Your task to perform on an android device: find which apps use the phone's location Image 0: 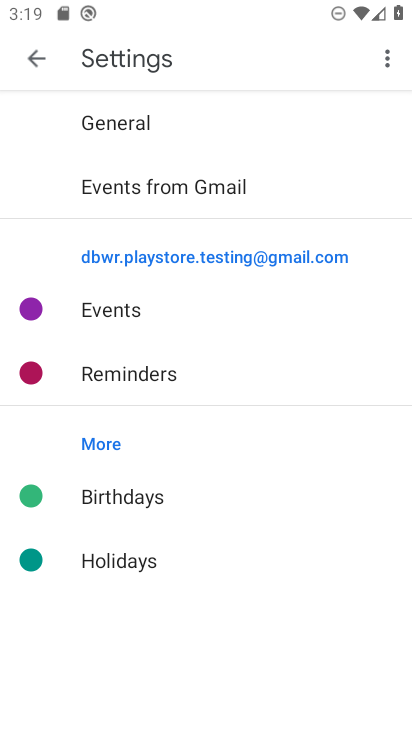
Step 0: drag from (245, 601) to (264, 6)
Your task to perform on an android device: find which apps use the phone's location Image 1: 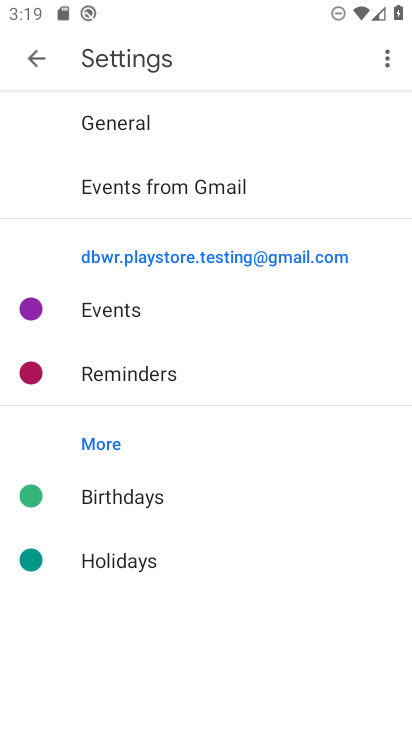
Step 1: press home button
Your task to perform on an android device: find which apps use the phone's location Image 2: 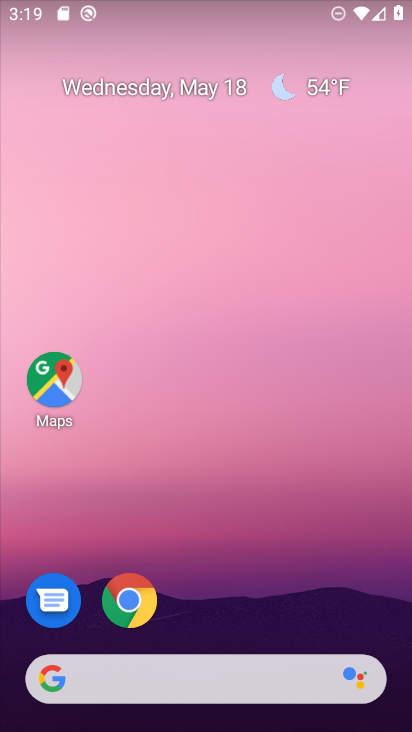
Step 2: drag from (202, 610) to (314, 0)
Your task to perform on an android device: find which apps use the phone's location Image 3: 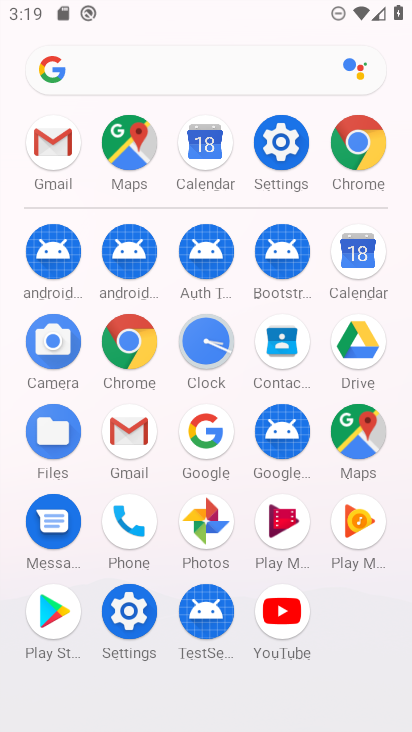
Step 3: click (292, 153)
Your task to perform on an android device: find which apps use the phone's location Image 4: 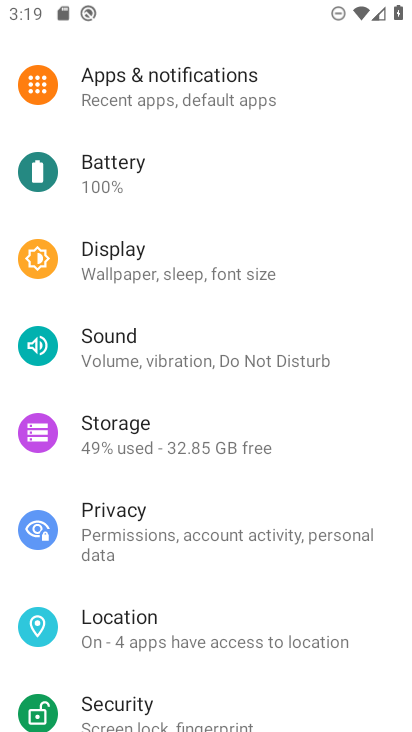
Step 4: drag from (229, 181) to (259, 135)
Your task to perform on an android device: find which apps use the phone's location Image 5: 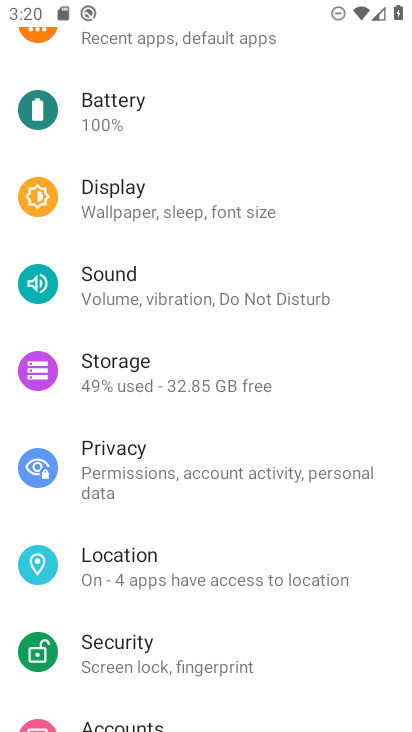
Step 5: click (164, 570)
Your task to perform on an android device: find which apps use the phone's location Image 6: 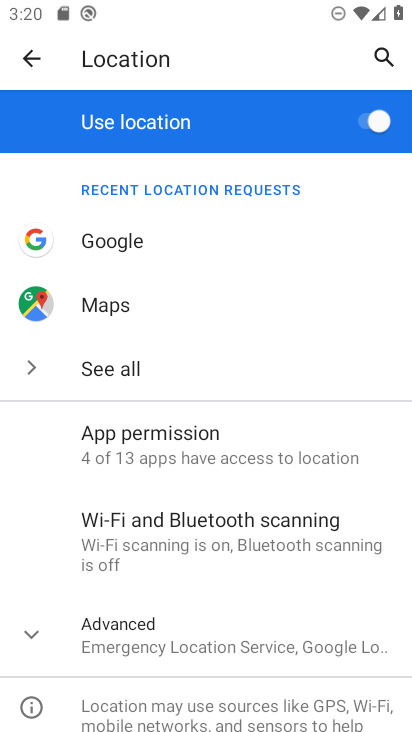
Step 6: drag from (243, 586) to (264, 451)
Your task to perform on an android device: find which apps use the phone's location Image 7: 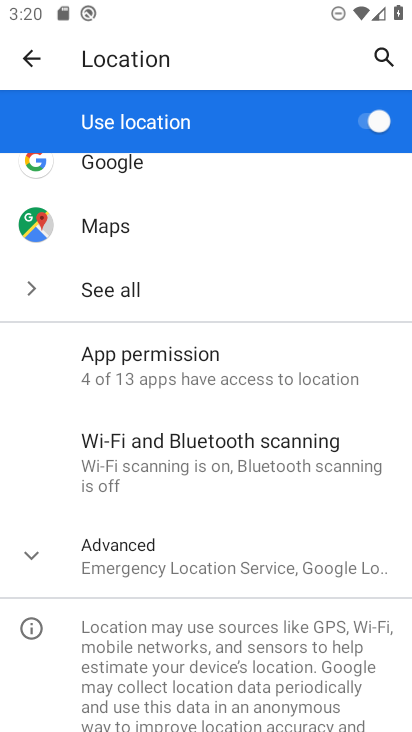
Step 7: click (188, 387)
Your task to perform on an android device: find which apps use the phone's location Image 8: 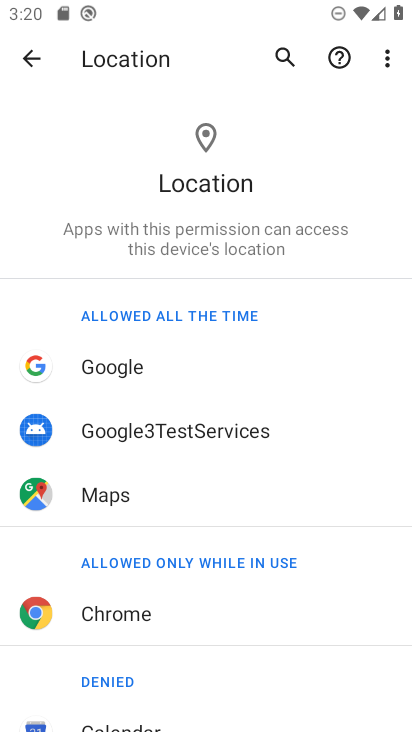
Step 8: task complete